Your task to perform on an android device: Check the weather Image 0: 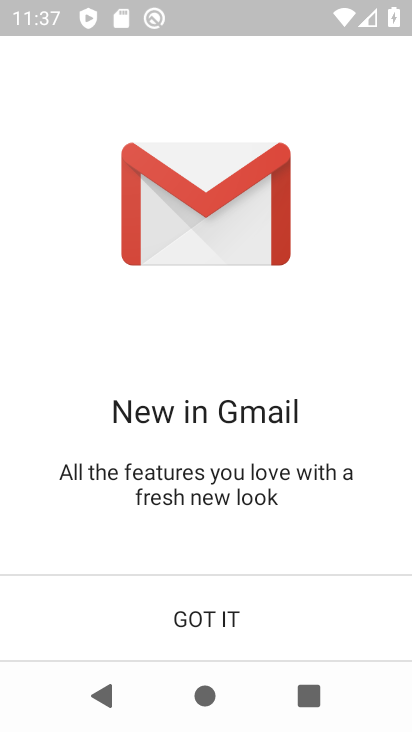
Step 0: press home button
Your task to perform on an android device: Check the weather Image 1: 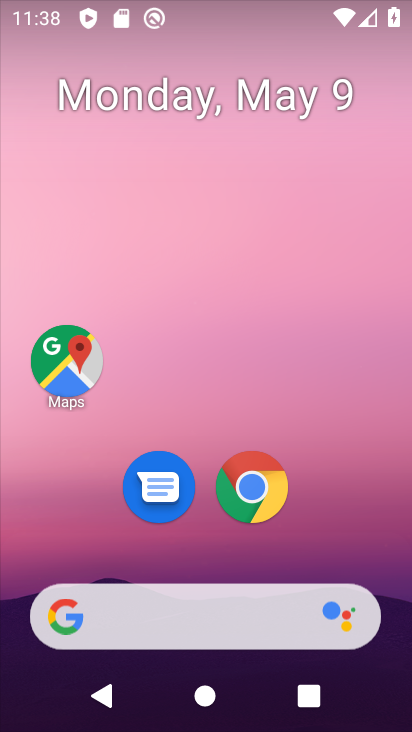
Step 1: drag from (24, 206) to (392, 245)
Your task to perform on an android device: Check the weather Image 2: 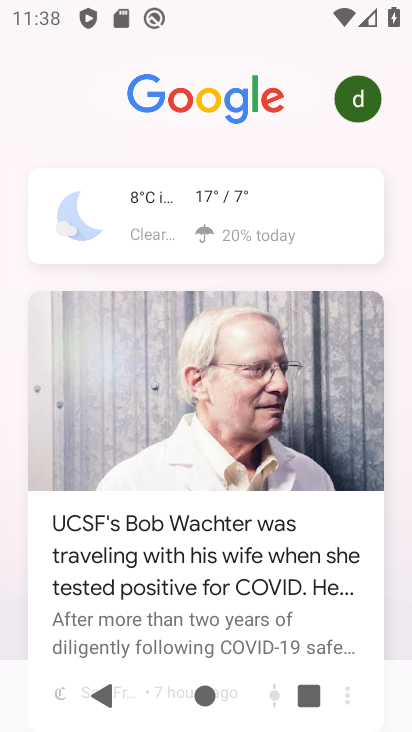
Step 2: click (221, 197)
Your task to perform on an android device: Check the weather Image 3: 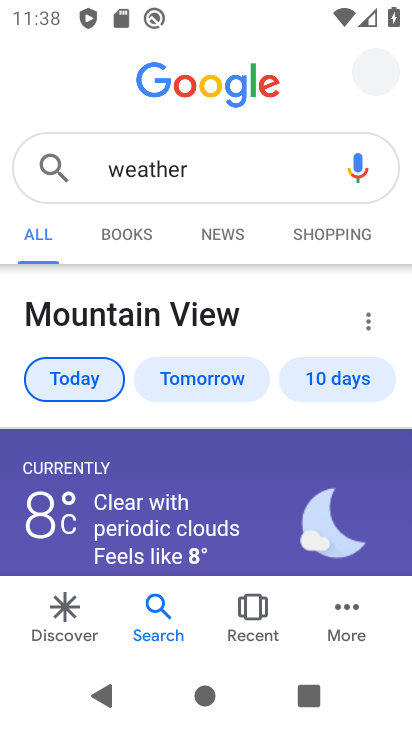
Step 3: task complete